Your task to perform on an android device: Show the shopping cart on amazon.com. Search for "acer nitro" on amazon.com, select the first entry, and add it to the cart. Image 0: 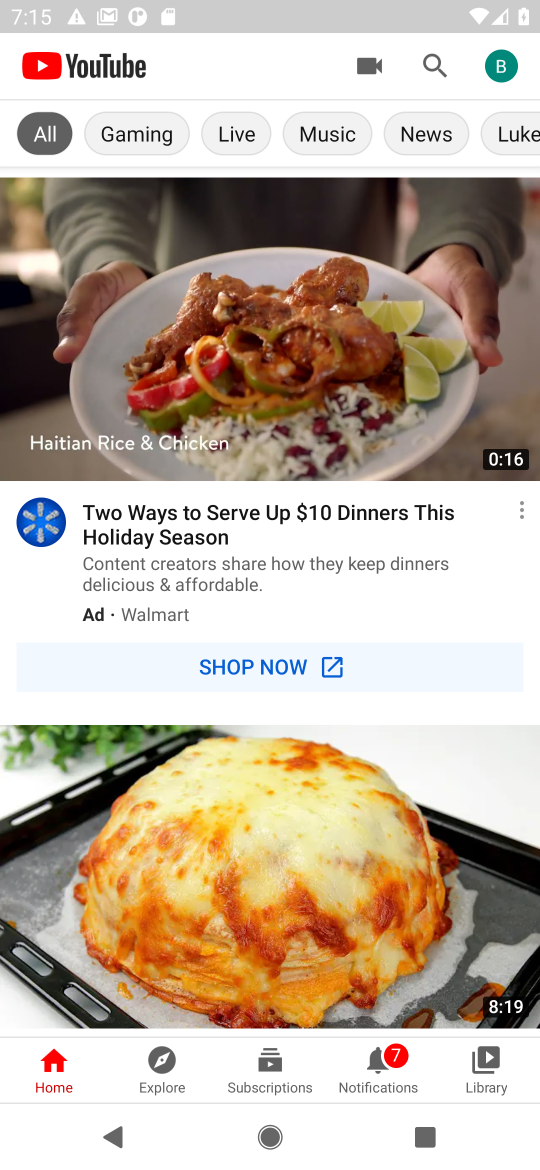
Step 0: press home button
Your task to perform on an android device: Show the shopping cart on amazon.com. Search for "acer nitro" on amazon.com, select the first entry, and add it to the cart. Image 1: 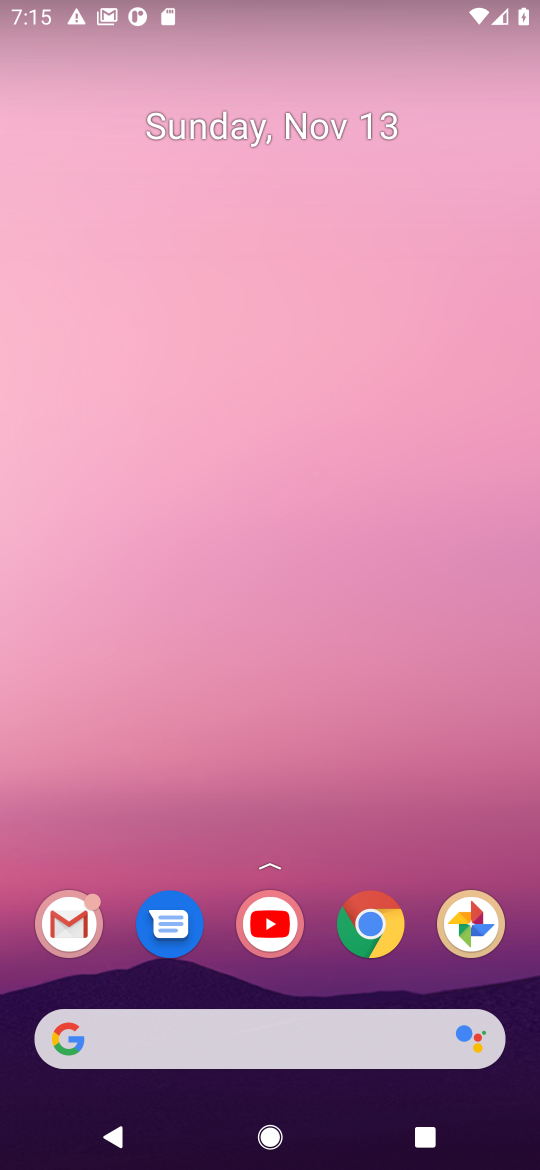
Step 1: click (374, 914)
Your task to perform on an android device: Show the shopping cart on amazon.com. Search for "acer nitro" on amazon.com, select the first entry, and add it to the cart. Image 2: 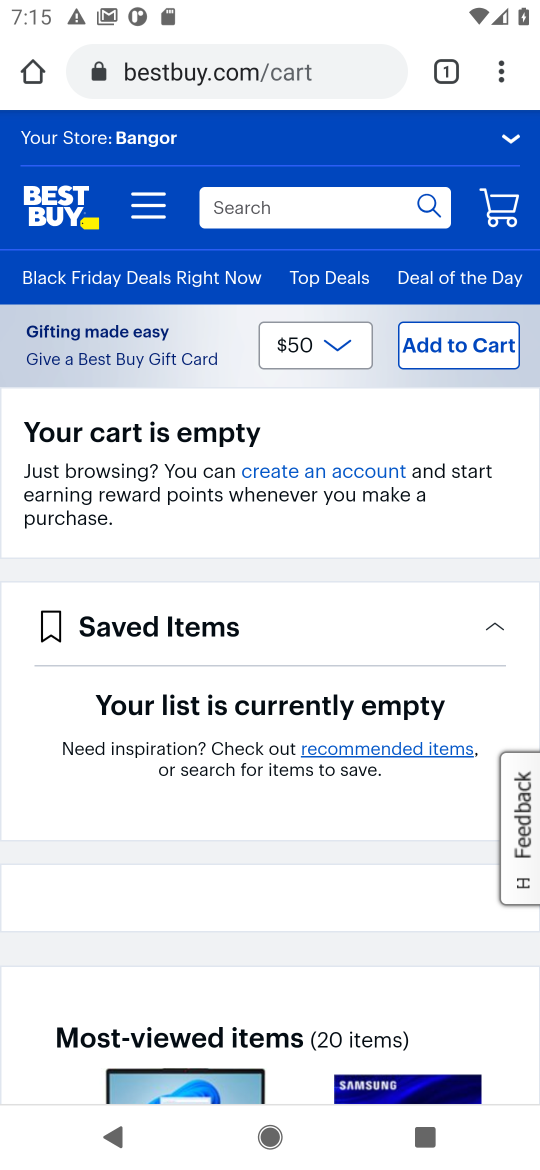
Step 2: click (247, 67)
Your task to perform on an android device: Show the shopping cart on amazon.com. Search for "acer nitro" on amazon.com, select the first entry, and add it to the cart. Image 3: 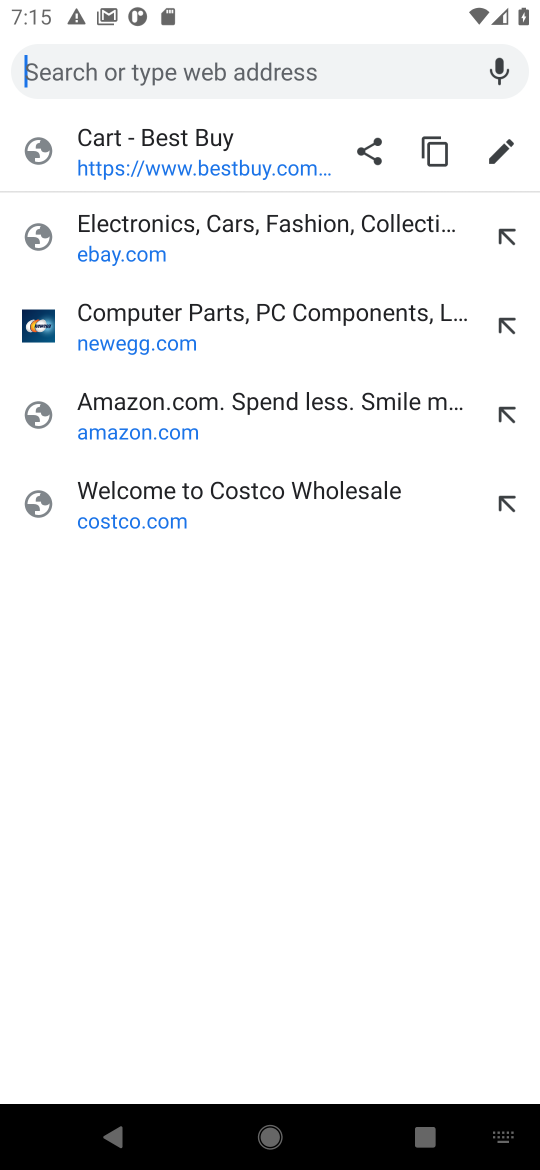
Step 3: click (104, 410)
Your task to perform on an android device: Show the shopping cart on amazon.com. Search for "acer nitro" on amazon.com, select the first entry, and add it to the cart. Image 4: 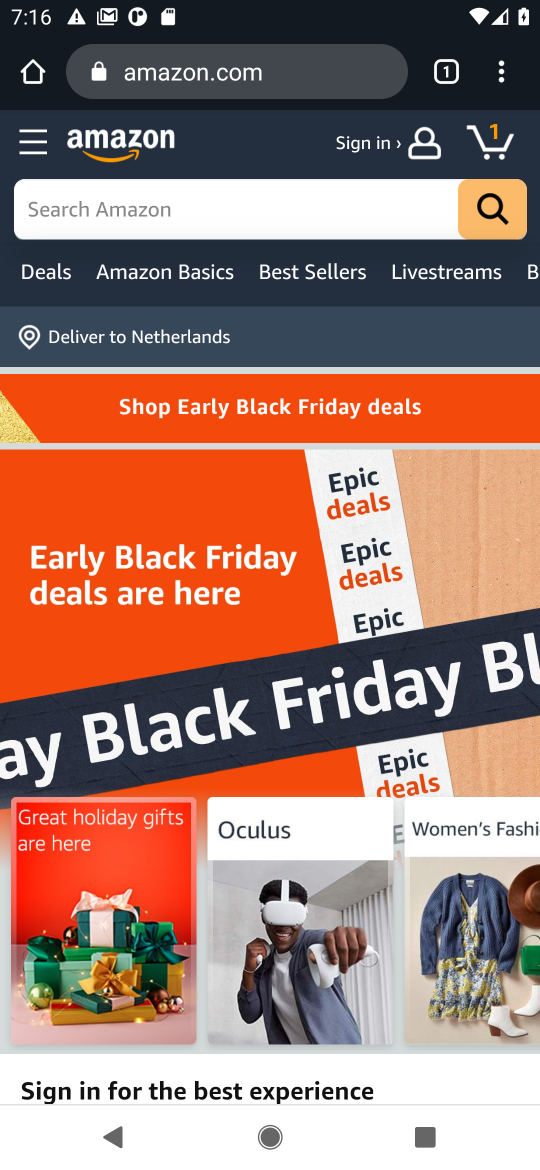
Step 4: click (483, 138)
Your task to perform on an android device: Show the shopping cart on amazon.com. Search for "acer nitro" on amazon.com, select the first entry, and add it to the cart. Image 5: 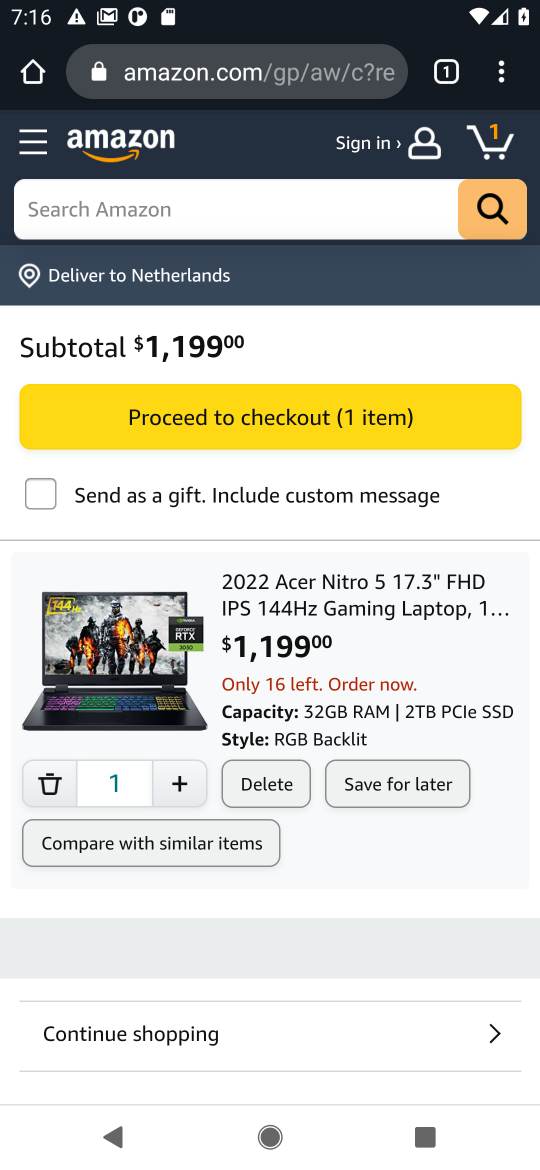
Step 5: click (142, 222)
Your task to perform on an android device: Show the shopping cart on amazon.com. Search for "acer nitro" on amazon.com, select the first entry, and add it to the cart. Image 6: 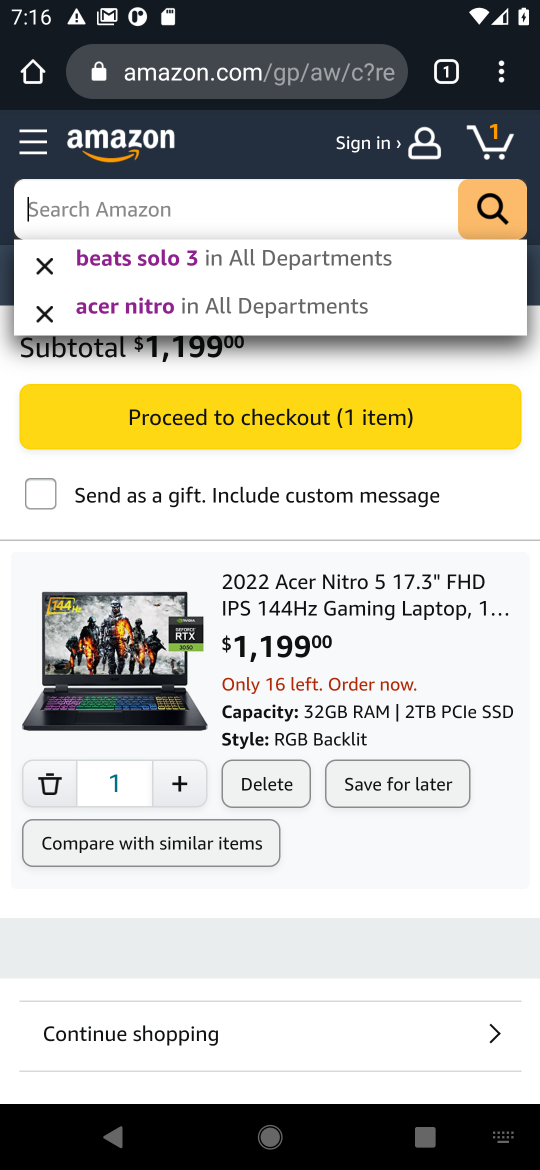
Step 6: type "acer nitro"
Your task to perform on an android device: Show the shopping cart on amazon.com. Search for "acer nitro" on amazon.com, select the first entry, and add it to the cart. Image 7: 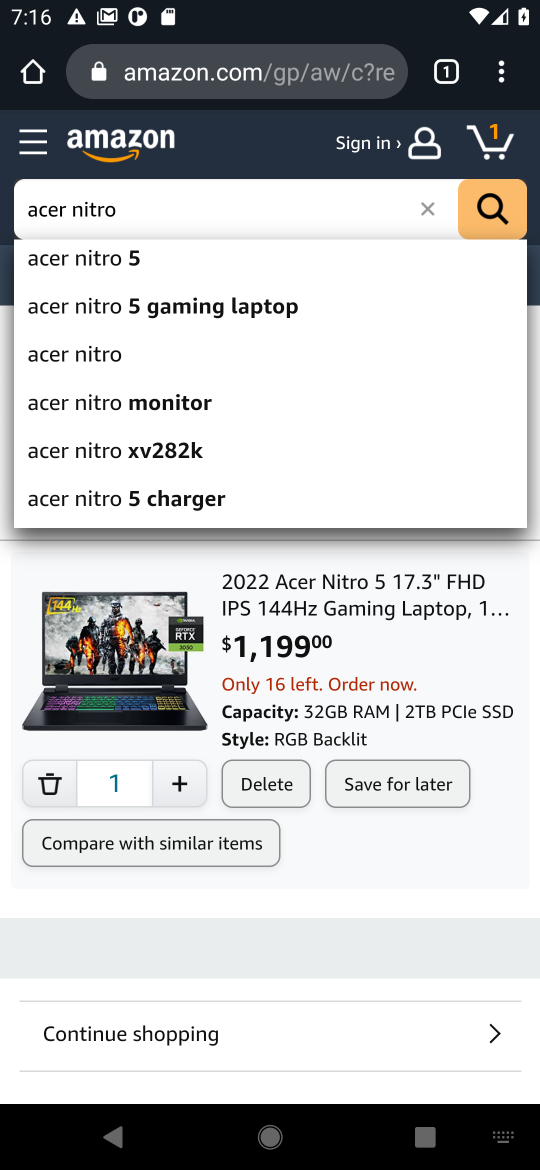
Step 7: click (59, 360)
Your task to perform on an android device: Show the shopping cart on amazon.com. Search for "acer nitro" on amazon.com, select the first entry, and add it to the cart. Image 8: 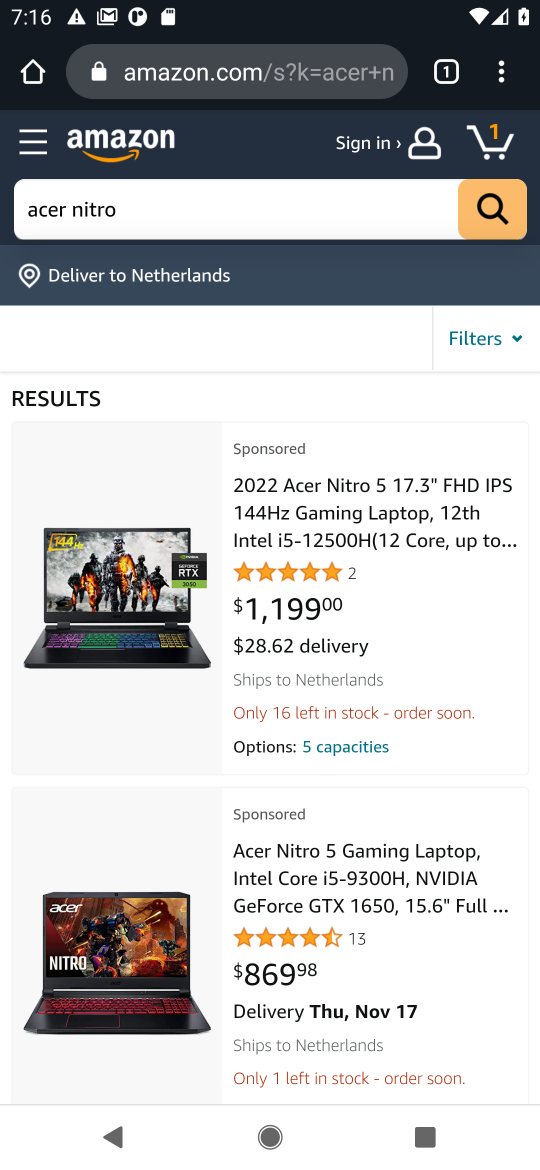
Step 8: click (114, 607)
Your task to perform on an android device: Show the shopping cart on amazon.com. Search for "acer nitro" on amazon.com, select the first entry, and add it to the cart. Image 9: 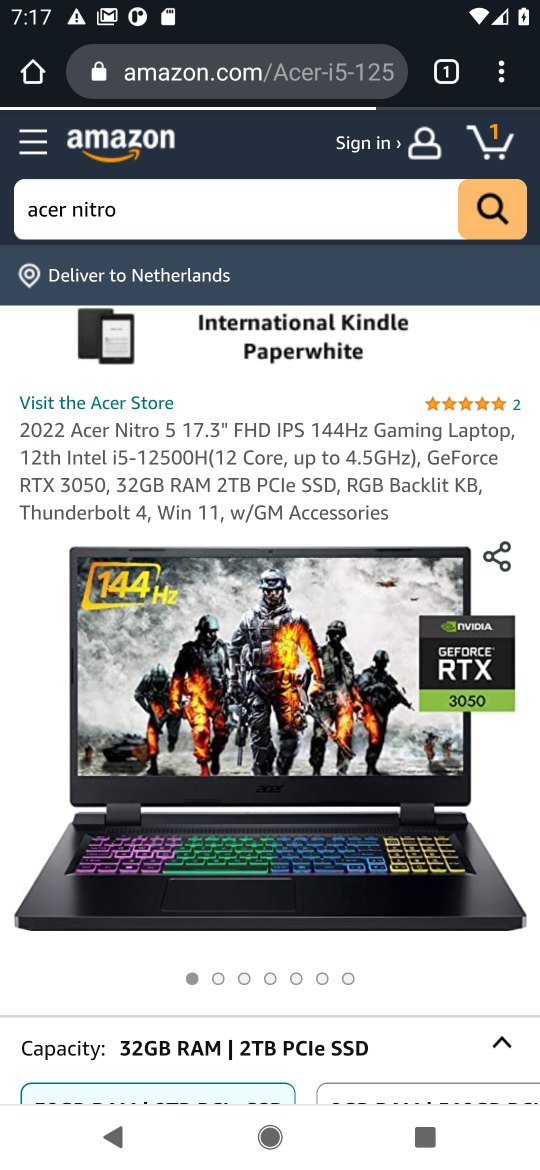
Step 9: drag from (263, 824) to (256, 427)
Your task to perform on an android device: Show the shopping cart on amazon.com. Search for "acer nitro" on amazon.com, select the first entry, and add it to the cart. Image 10: 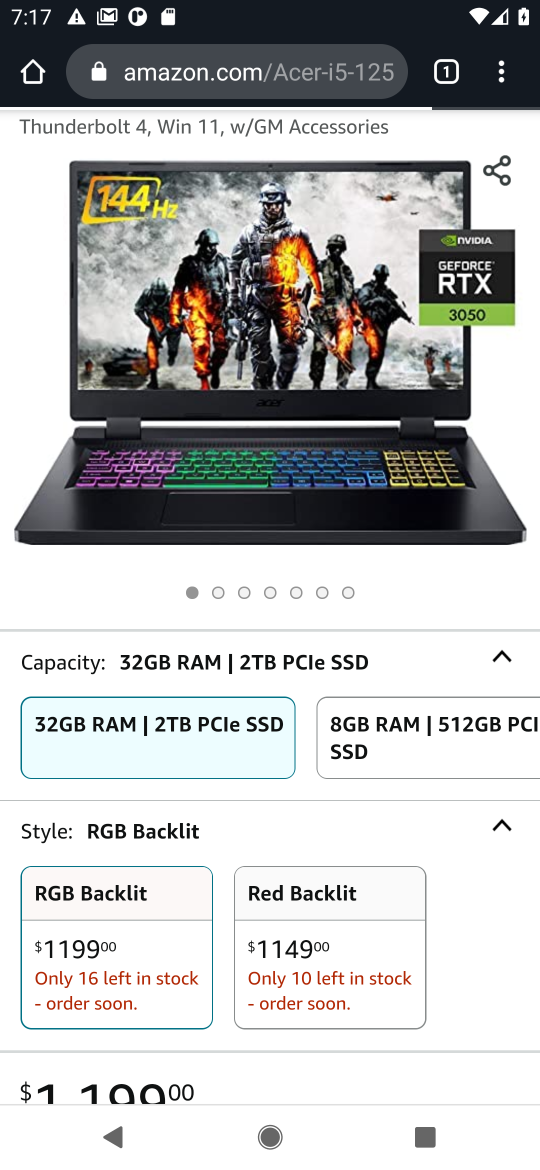
Step 10: drag from (247, 720) to (199, 345)
Your task to perform on an android device: Show the shopping cart on amazon.com. Search for "acer nitro" on amazon.com, select the first entry, and add it to the cart. Image 11: 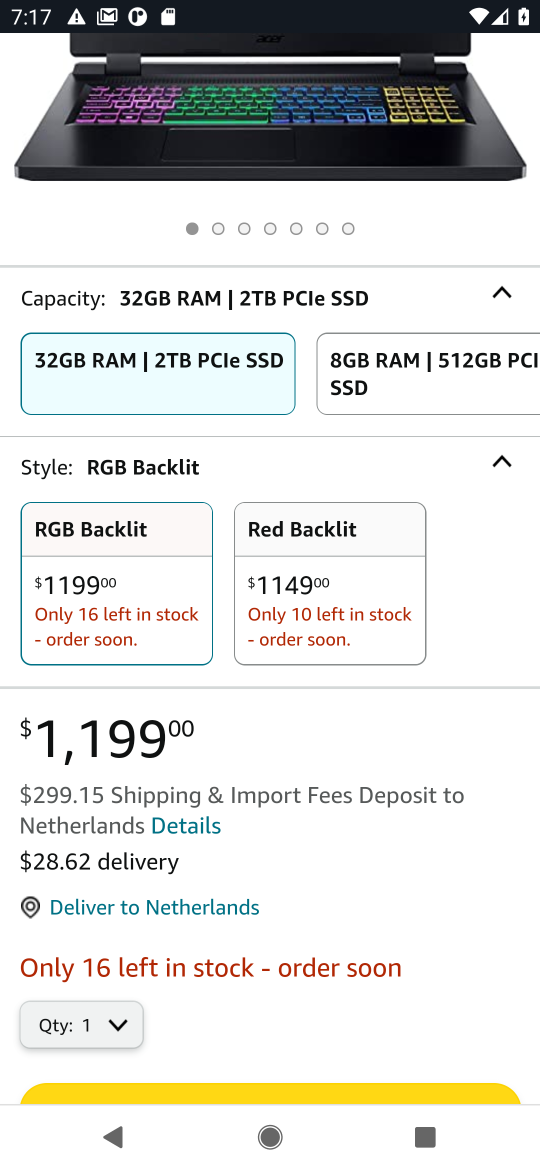
Step 11: drag from (246, 825) to (227, 429)
Your task to perform on an android device: Show the shopping cart on amazon.com. Search for "acer nitro" on amazon.com, select the first entry, and add it to the cart. Image 12: 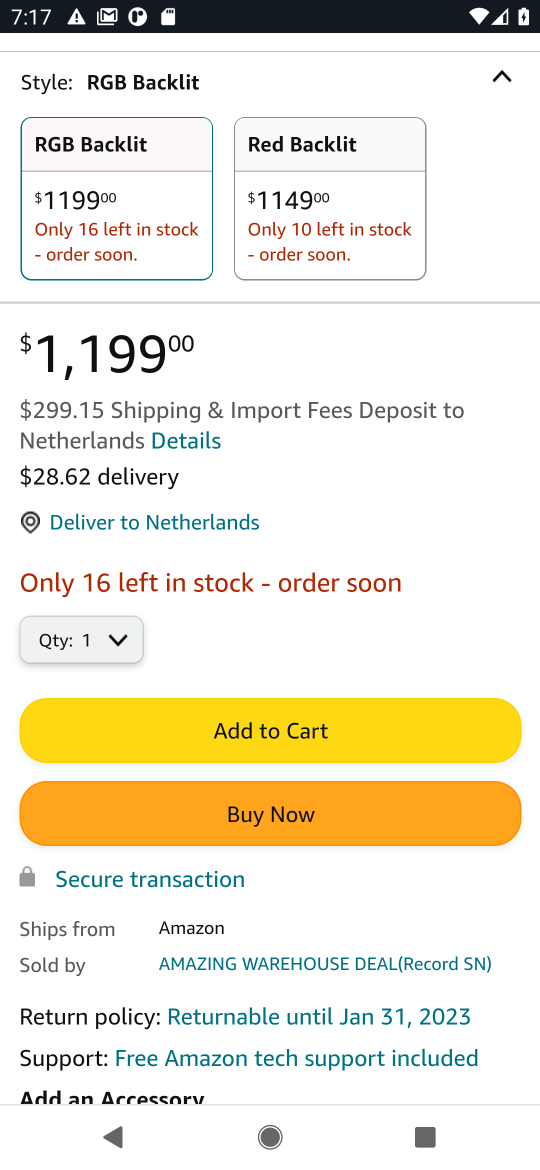
Step 12: click (241, 726)
Your task to perform on an android device: Show the shopping cart on amazon.com. Search for "acer nitro" on amazon.com, select the first entry, and add it to the cart. Image 13: 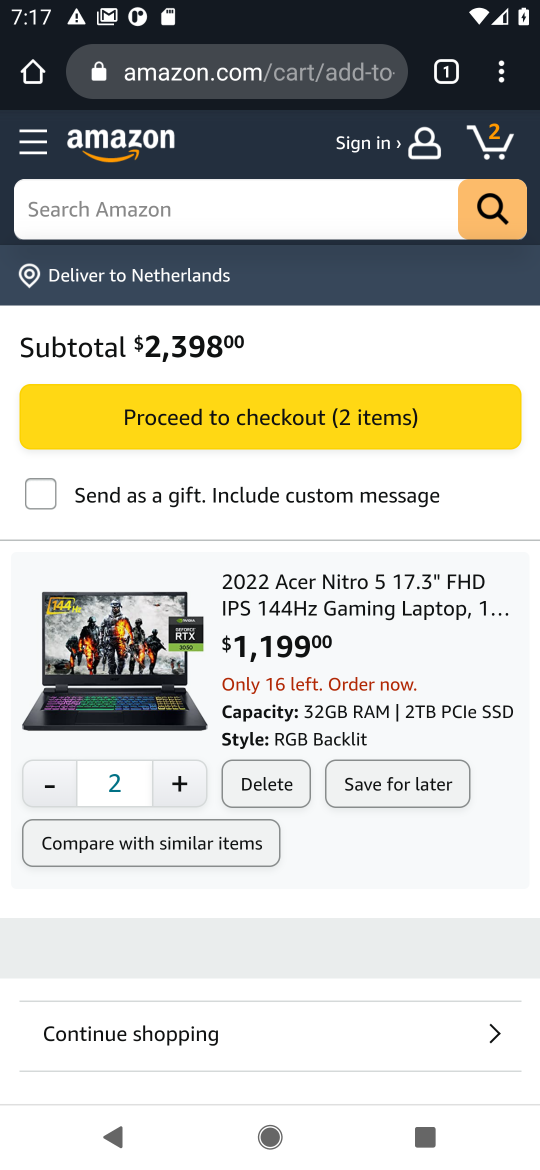
Step 13: task complete